Your task to perform on an android device: turn off location history Image 0: 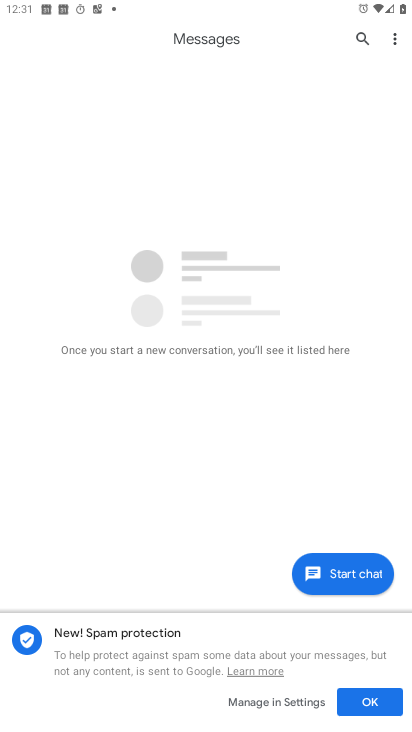
Step 0: press home button
Your task to perform on an android device: turn off location history Image 1: 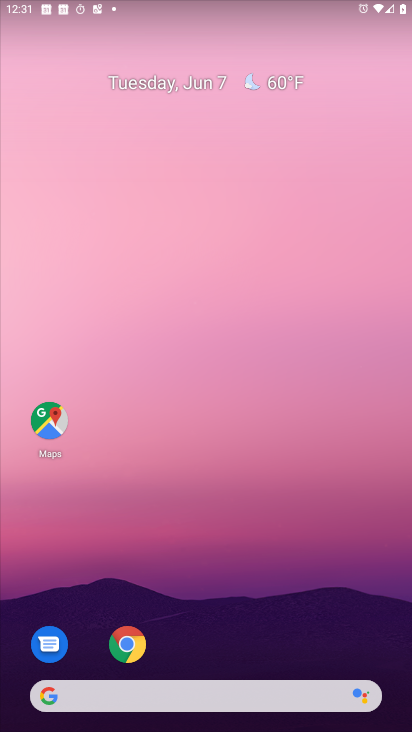
Step 1: drag from (137, 700) to (155, 14)
Your task to perform on an android device: turn off location history Image 2: 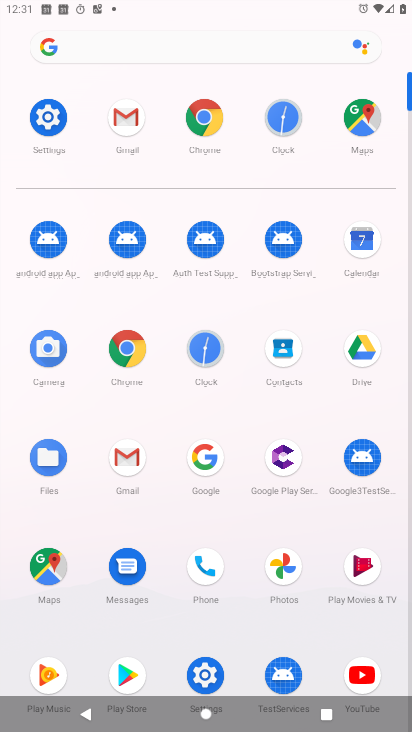
Step 2: click (45, 117)
Your task to perform on an android device: turn off location history Image 3: 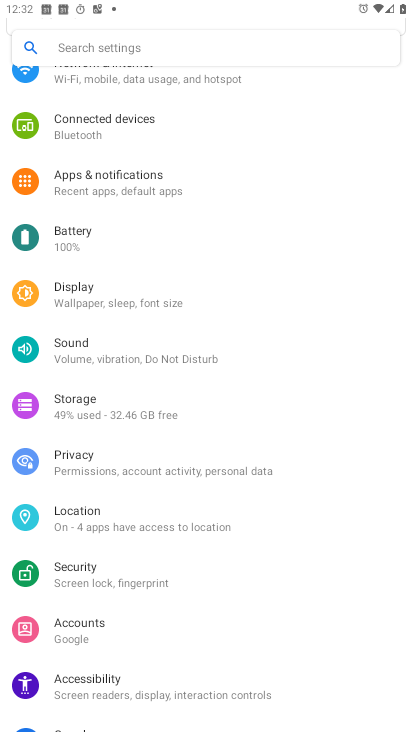
Step 3: click (103, 528)
Your task to perform on an android device: turn off location history Image 4: 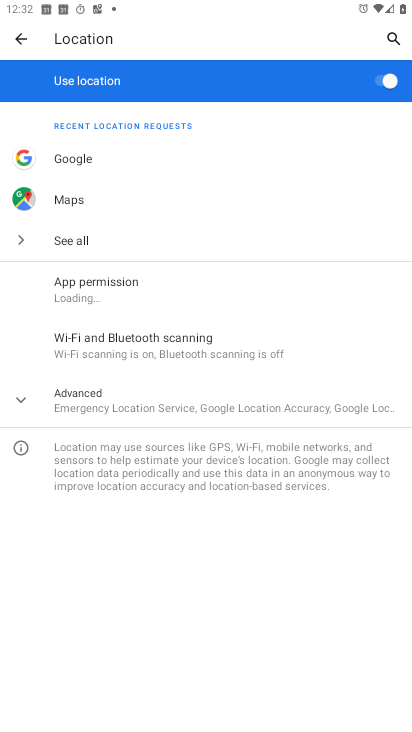
Step 4: click (111, 400)
Your task to perform on an android device: turn off location history Image 5: 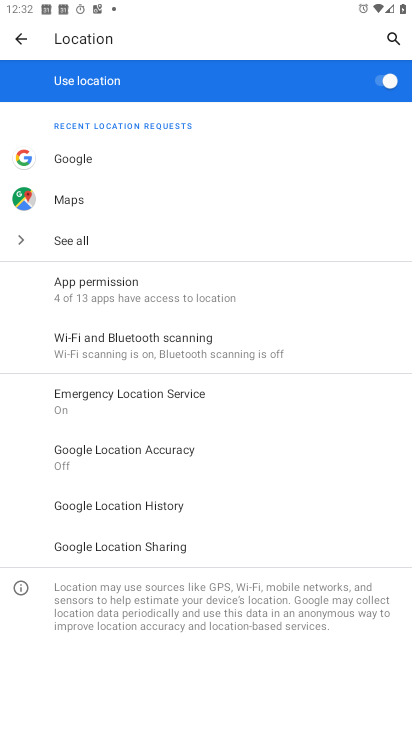
Step 5: click (166, 510)
Your task to perform on an android device: turn off location history Image 6: 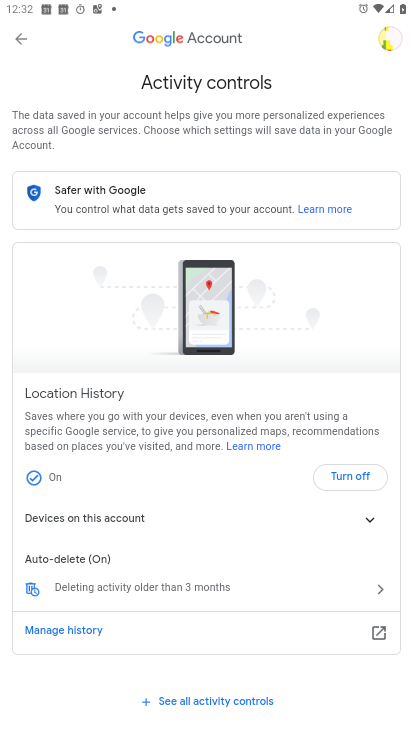
Step 6: click (332, 482)
Your task to perform on an android device: turn off location history Image 7: 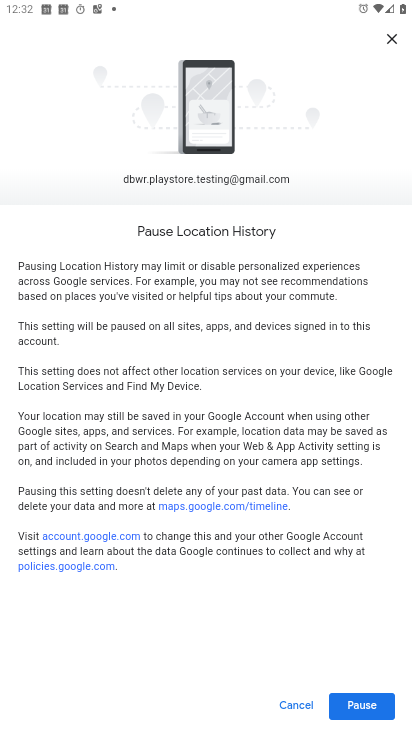
Step 7: click (356, 708)
Your task to perform on an android device: turn off location history Image 8: 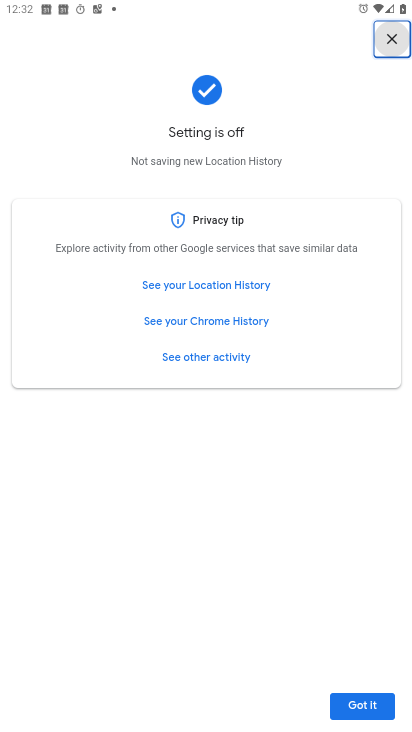
Step 8: click (370, 705)
Your task to perform on an android device: turn off location history Image 9: 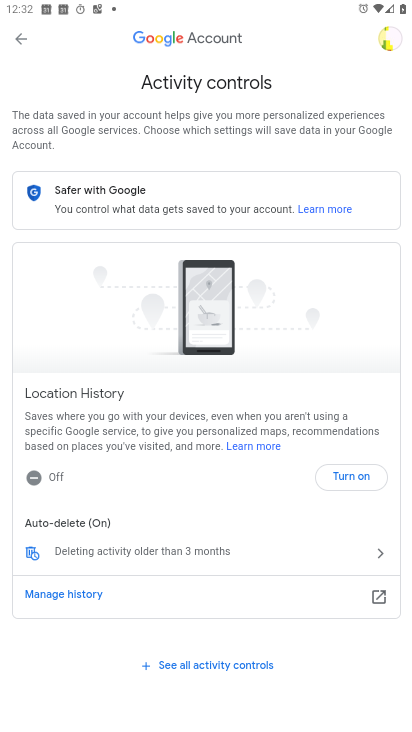
Step 9: task complete